Your task to perform on an android device: Search for Italian restaurants on Maps Image 0: 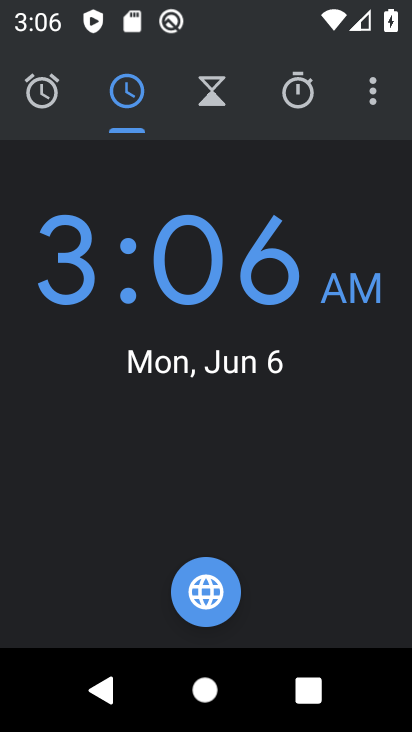
Step 0: press home button
Your task to perform on an android device: Search for Italian restaurants on Maps Image 1: 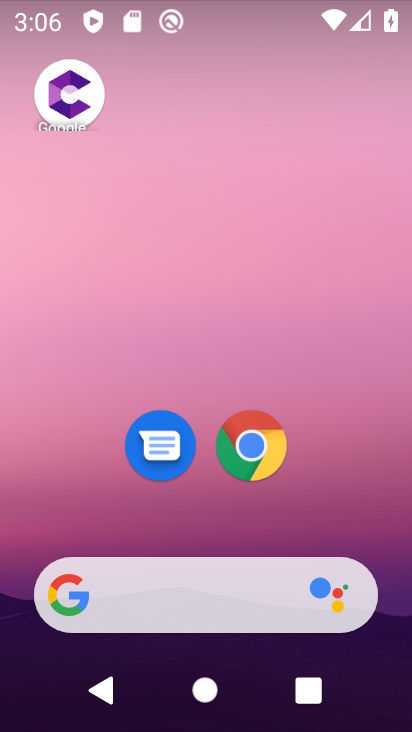
Step 1: drag from (175, 516) to (187, 239)
Your task to perform on an android device: Search for Italian restaurants on Maps Image 2: 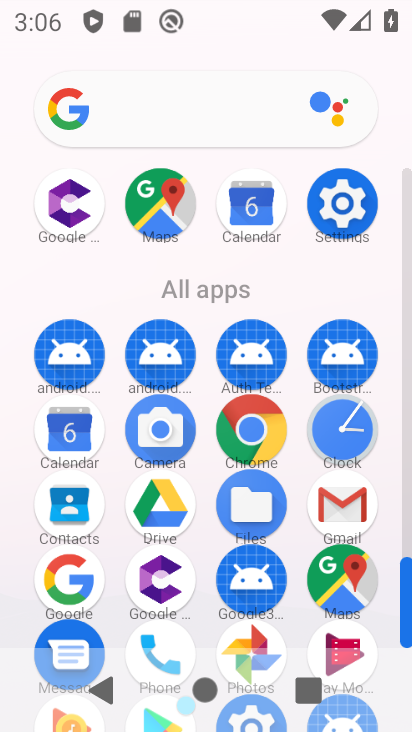
Step 2: click (163, 189)
Your task to perform on an android device: Search for Italian restaurants on Maps Image 3: 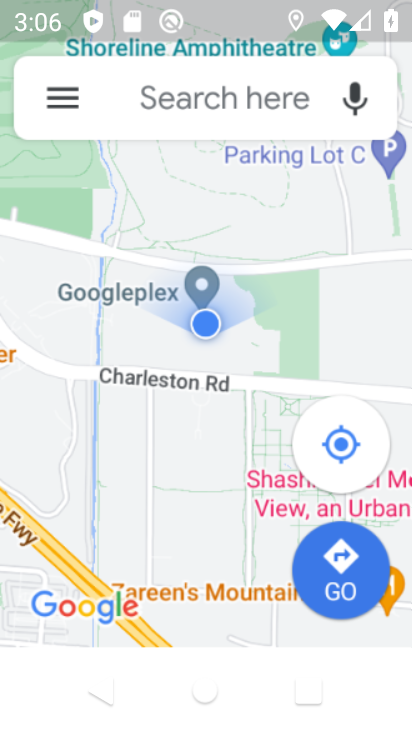
Step 3: click (225, 92)
Your task to perform on an android device: Search for Italian restaurants on Maps Image 4: 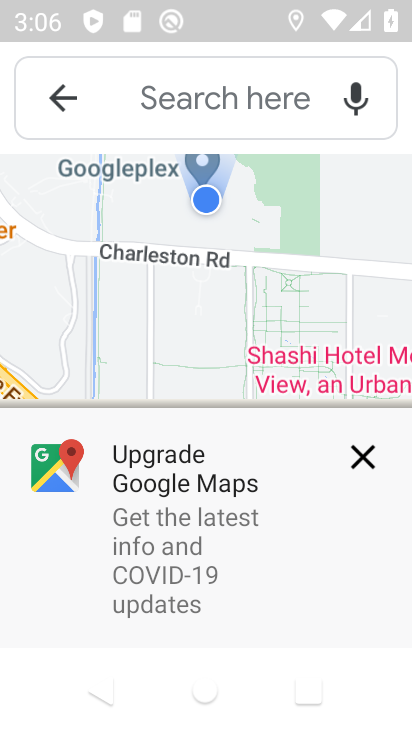
Step 4: click (180, 97)
Your task to perform on an android device: Search for Italian restaurants on Maps Image 5: 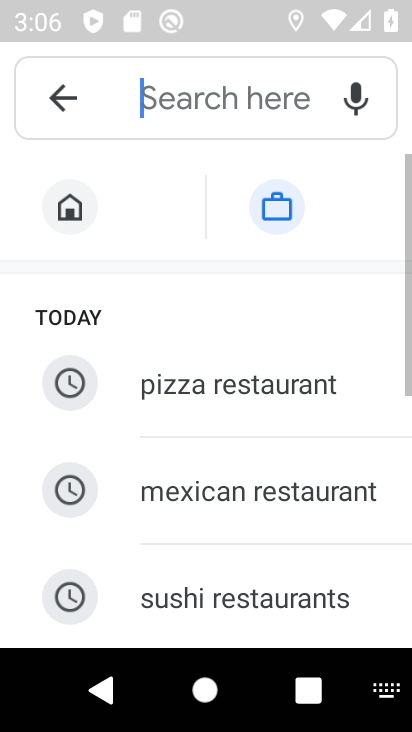
Step 5: click (240, 487)
Your task to perform on an android device: Search for Italian restaurants on Maps Image 6: 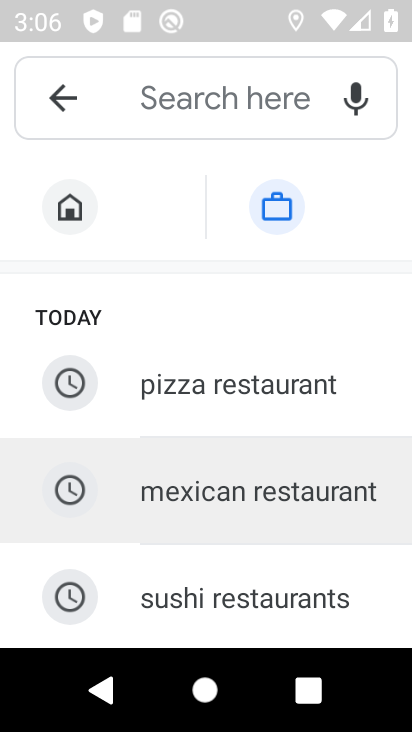
Step 6: drag from (248, 489) to (265, 275)
Your task to perform on an android device: Search for Italian restaurants on Maps Image 7: 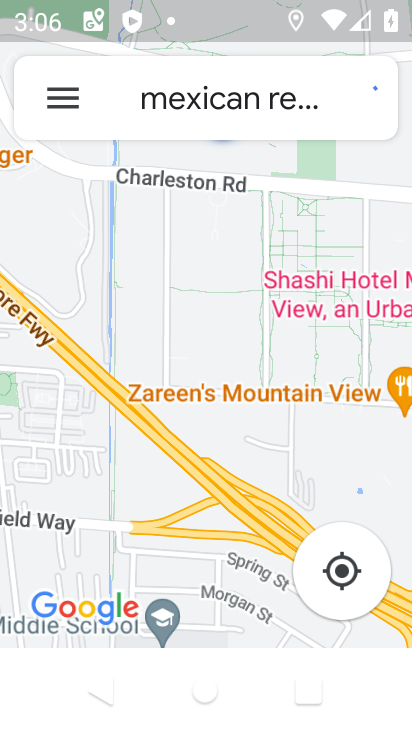
Step 7: click (315, 91)
Your task to perform on an android device: Search for Italian restaurants on Maps Image 8: 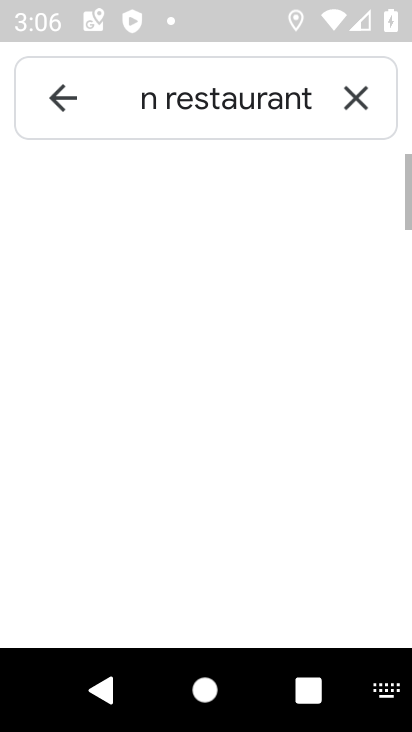
Step 8: click (348, 95)
Your task to perform on an android device: Search for Italian restaurants on Maps Image 9: 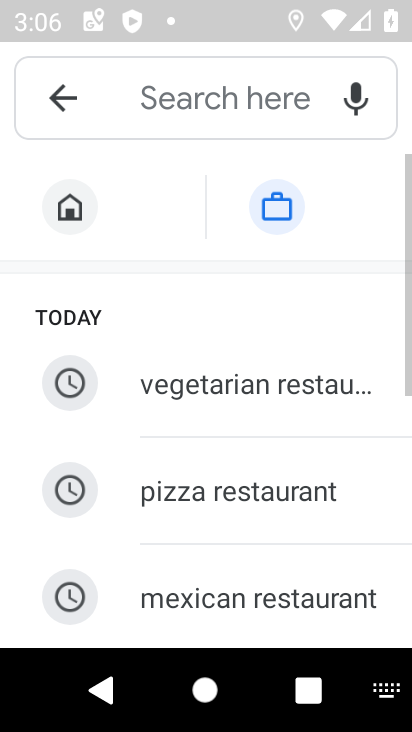
Step 9: drag from (211, 575) to (235, 282)
Your task to perform on an android device: Search for Italian restaurants on Maps Image 10: 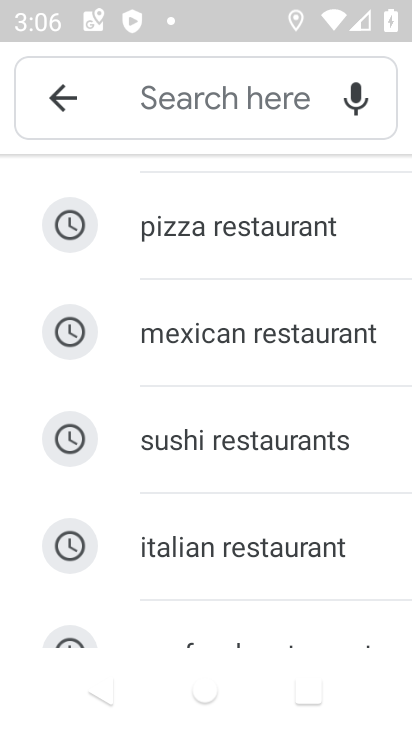
Step 10: click (214, 536)
Your task to perform on an android device: Search for Italian restaurants on Maps Image 11: 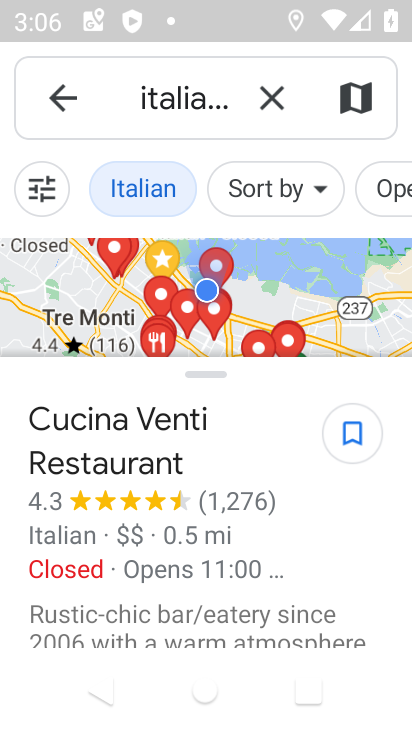
Step 11: click (214, 535)
Your task to perform on an android device: Search for Italian restaurants on Maps Image 12: 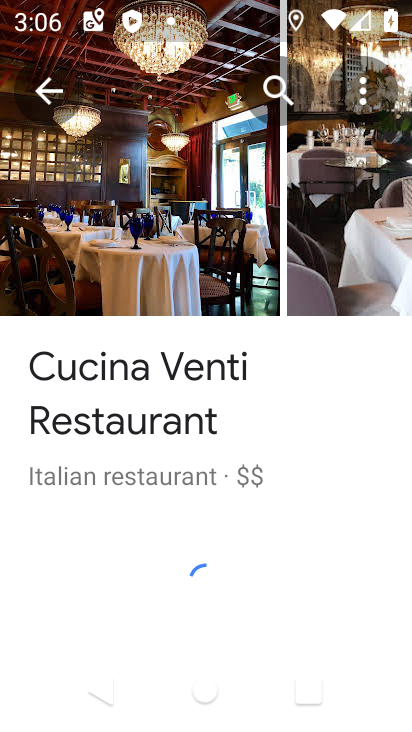
Step 12: task complete